Your task to perform on an android device: See recent photos Image 0: 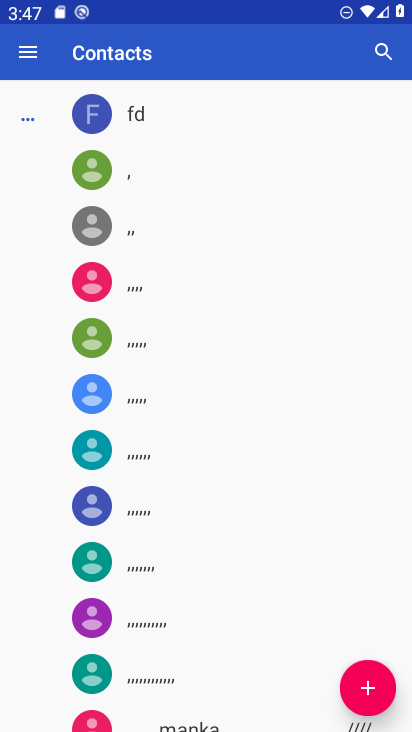
Step 0: press home button
Your task to perform on an android device: See recent photos Image 1: 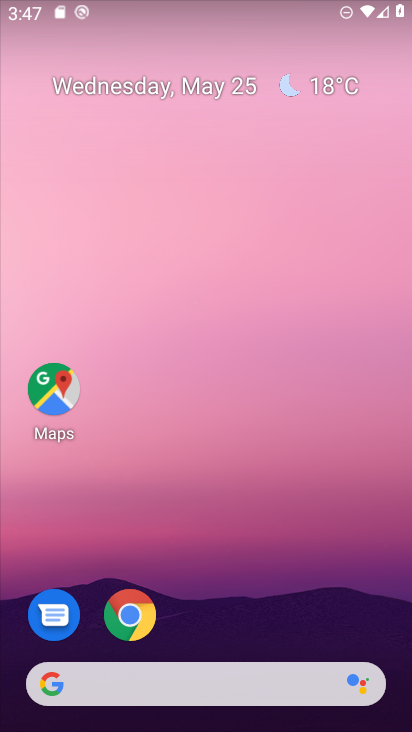
Step 1: drag from (281, 527) to (318, 58)
Your task to perform on an android device: See recent photos Image 2: 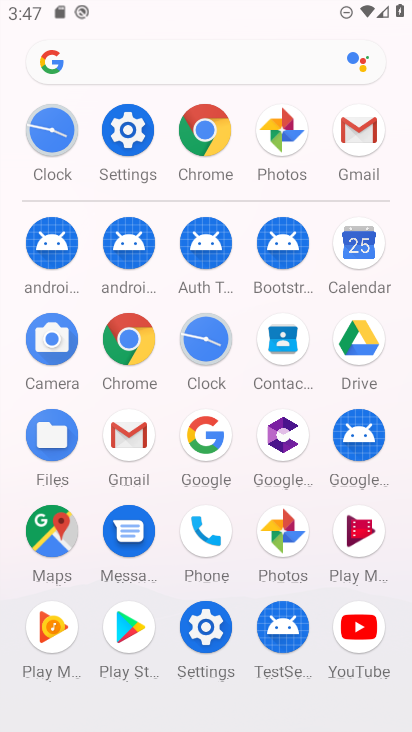
Step 2: click (287, 121)
Your task to perform on an android device: See recent photos Image 3: 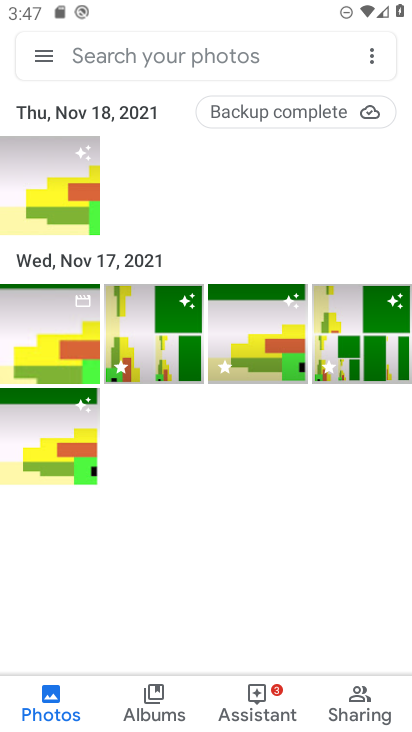
Step 3: task complete